Your task to perform on an android device: Open CNN.com Image 0: 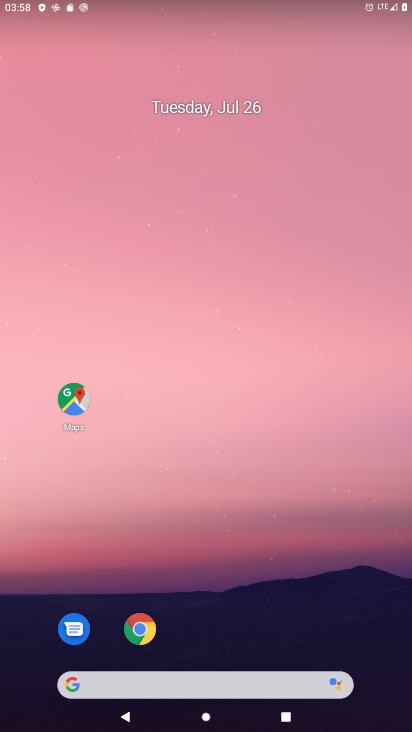
Step 0: drag from (279, 619) to (313, 135)
Your task to perform on an android device: Open CNN.com Image 1: 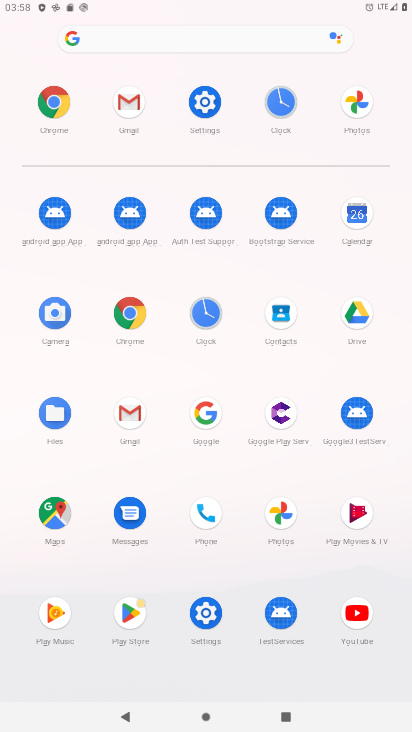
Step 1: click (133, 304)
Your task to perform on an android device: Open CNN.com Image 2: 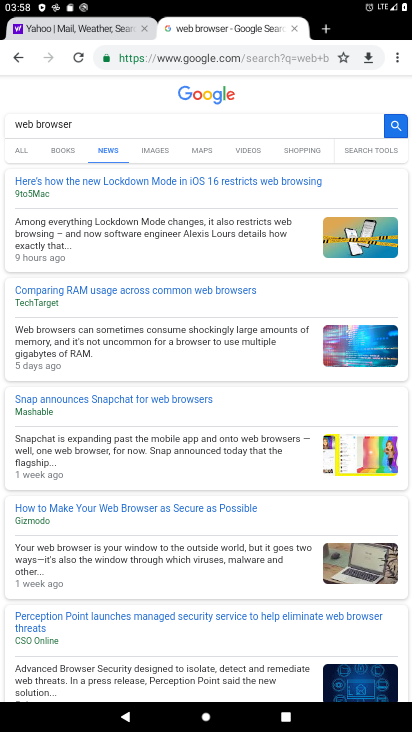
Step 2: click (223, 54)
Your task to perform on an android device: Open CNN.com Image 3: 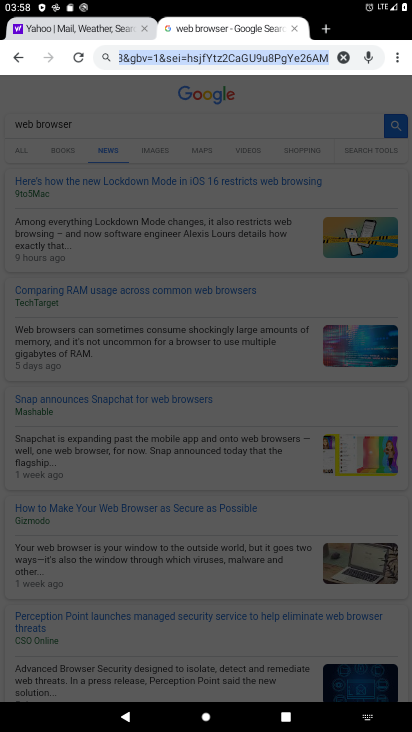
Step 3: type " CNN.com"
Your task to perform on an android device: Open CNN.com Image 4: 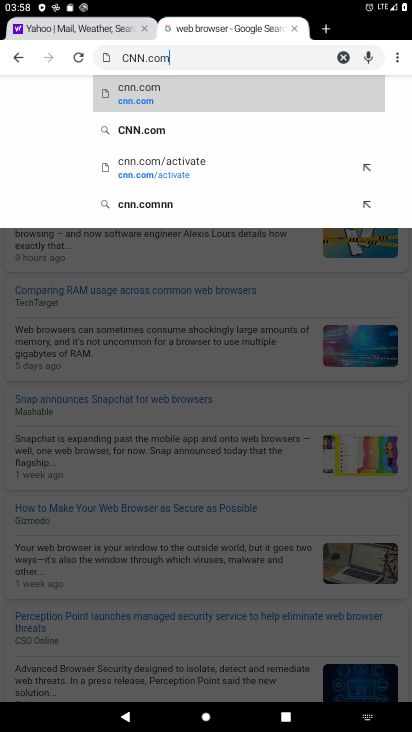
Step 4: click (149, 100)
Your task to perform on an android device: Open CNN.com Image 5: 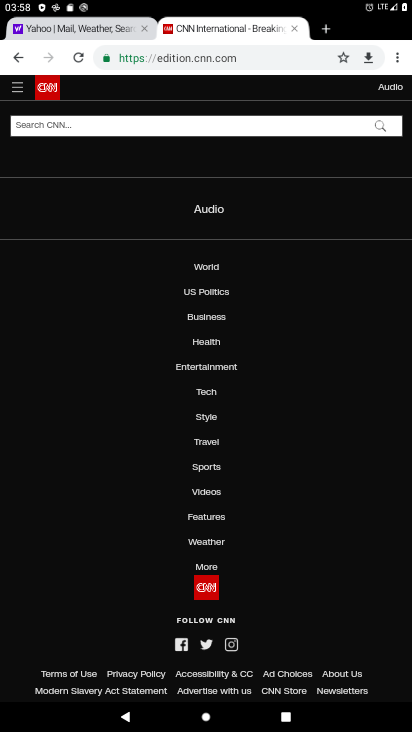
Step 5: task complete